Your task to perform on an android device: toggle wifi Image 0: 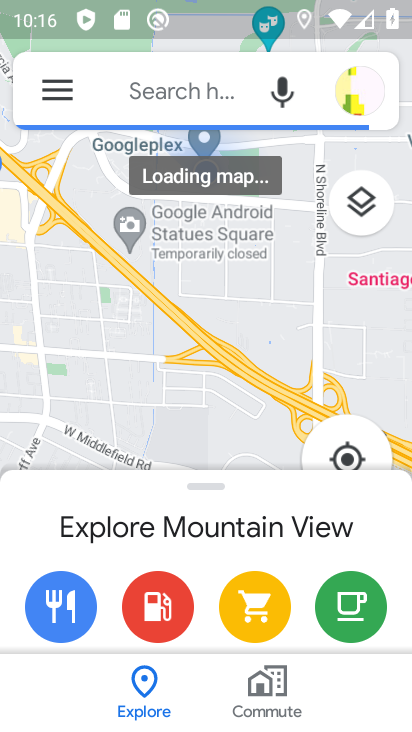
Step 0: press back button
Your task to perform on an android device: toggle wifi Image 1: 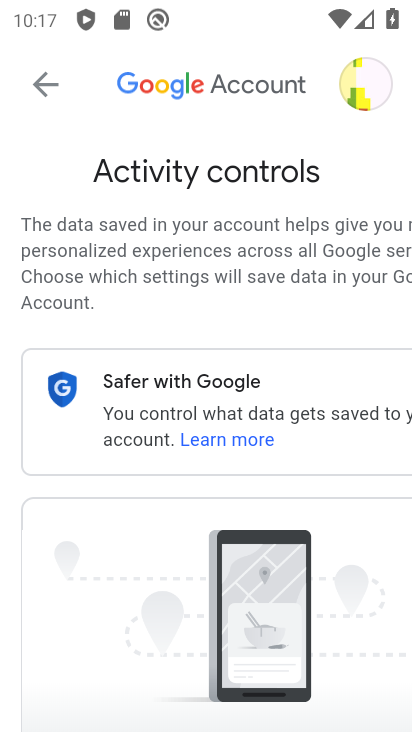
Step 1: press home button
Your task to perform on an android device: toggle wifi Image 2: 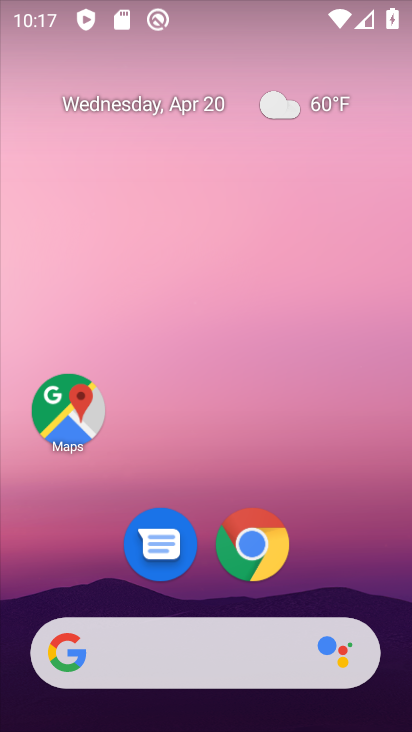
Step 2: drag from (321, 498) to (275, 104)
Your task to perform on an android device: toggle wifi Image 3: 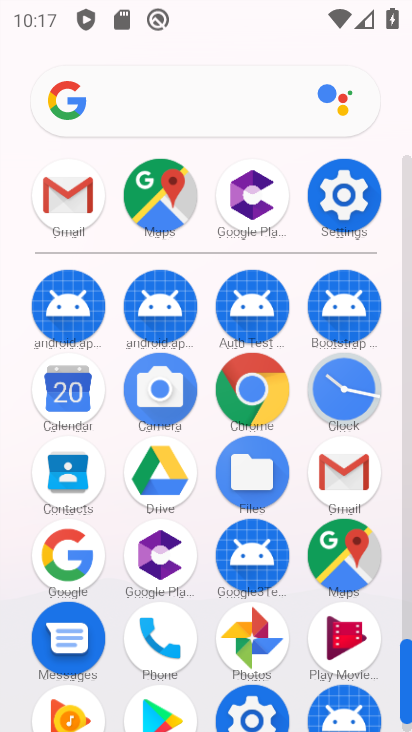
Step 3: click (333, 211)
Your task to perform on an android device: toggle wifi Image 4: 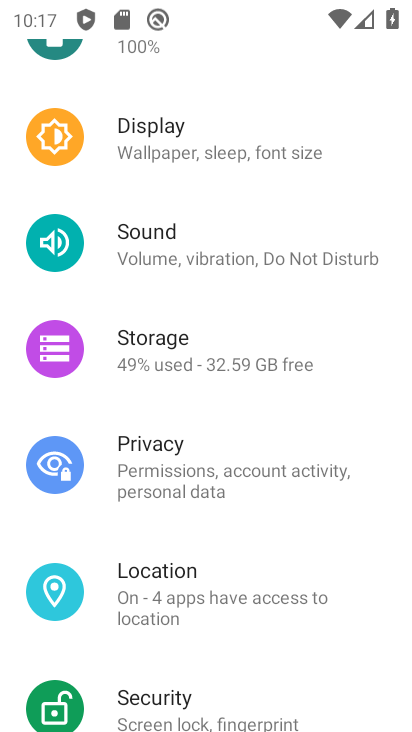
Step 4: drag from (307, 85) to (311, 560)
Your task to perform on an android device: toggle wifi Image 5: 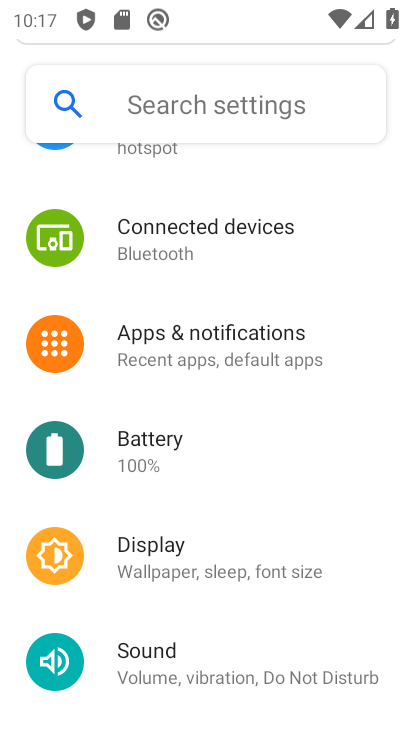
Step 5: drag from (281, 214) to (275, 602)
Your task to perform on an android device: toggle wifi Image 6: 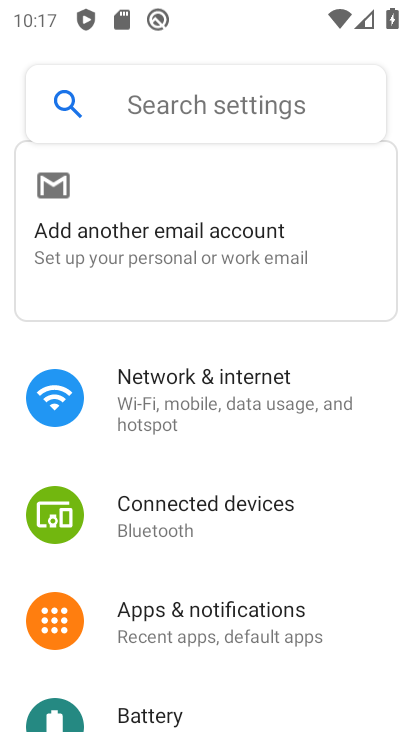
Step 6: click (276, 421)
Your task to perform on an android device: toggle wifi Image 7: 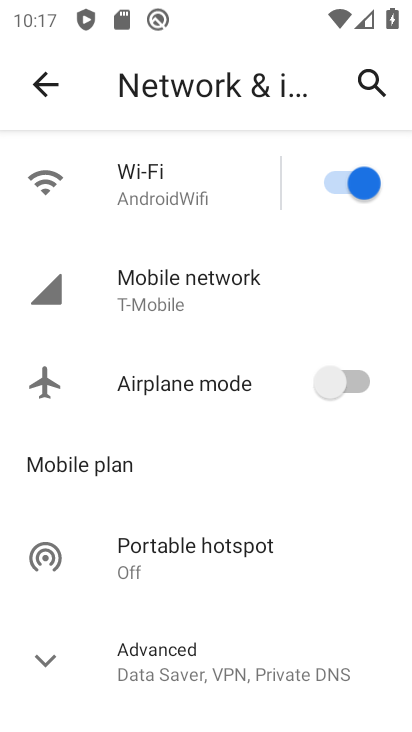
Step 7: click (342, 181)
Your task to perform on an android device: toggle wifi Image 8: 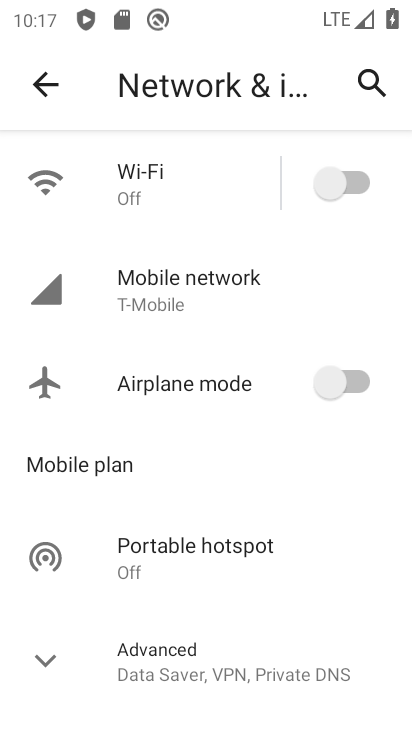
Step 8: task complete